Your task to perform on an android device: Open Android settings Image 0: 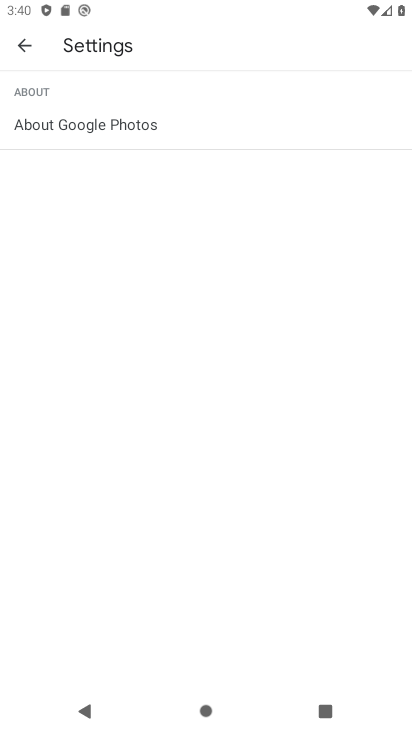
Step 0: press home button
Your task to perform on an android device: Open Android settings Image 1: 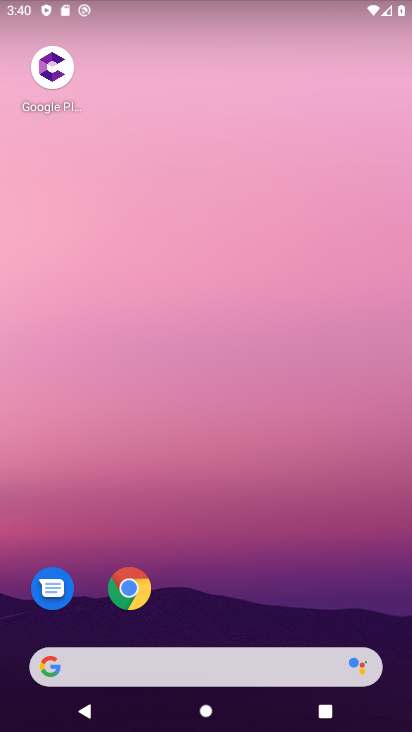
Step 1: drag from (254, 684) to (291, 179)
Your task to perform on an android device: Open Android settings Image 2: 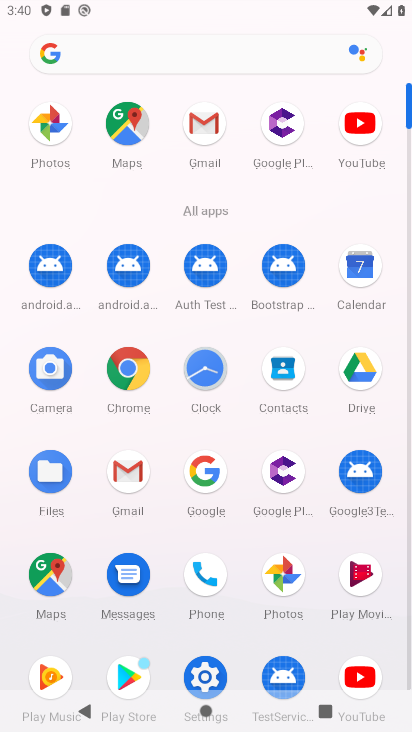
Step 2: click (204, 657)
Your task to perform on an android device: Open Android settings Image 3: 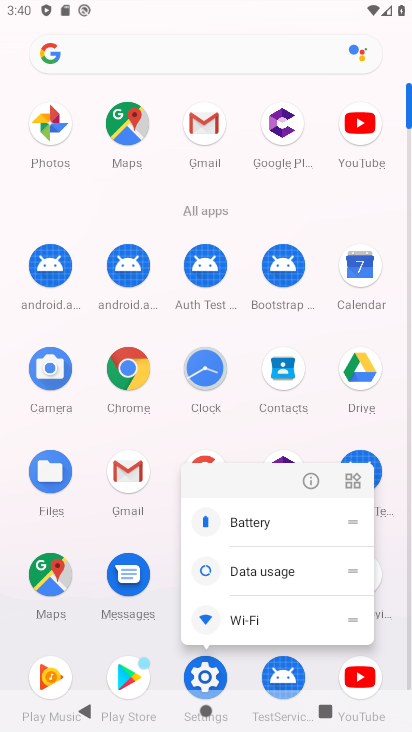
Step 3: click (203, 678)
Your task to perform on an android device: Open Android settings Image 4: 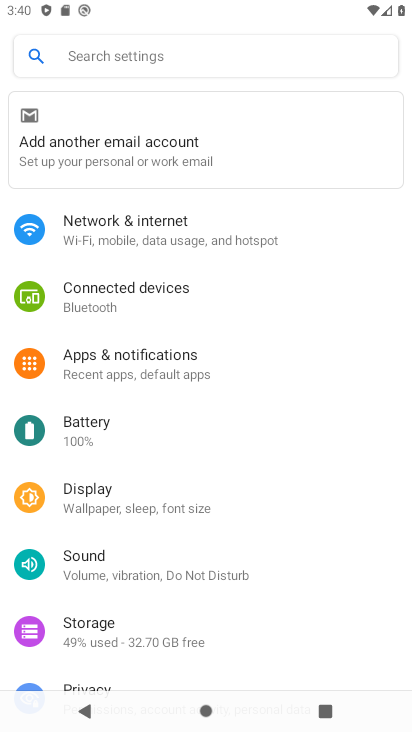
Step 4: click (103, 65)
Your task to perform on an android device: Open Android settings Image 5: 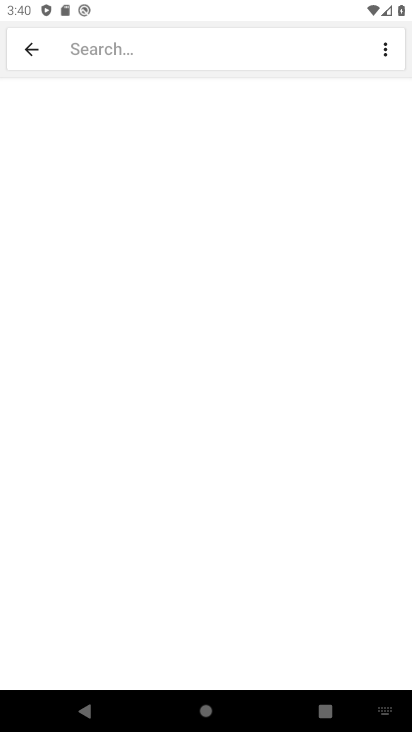
Step 5: click (380, 714)
Your task to perform on an android device: Open Android settings Image 6: 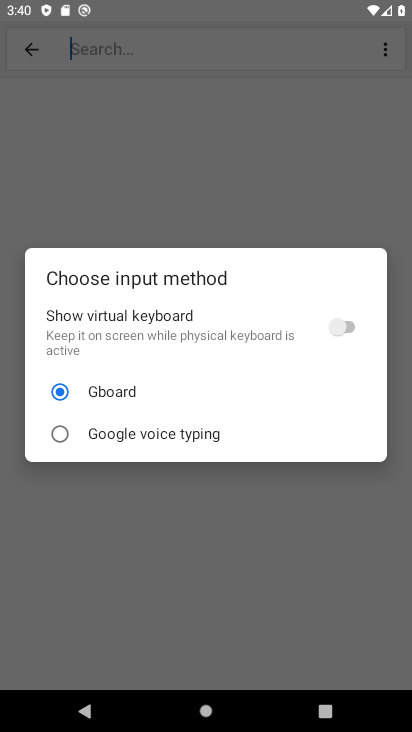
Step 6: click (349, 328)
Your task to perform on an android device: Open Android settings Image 7: 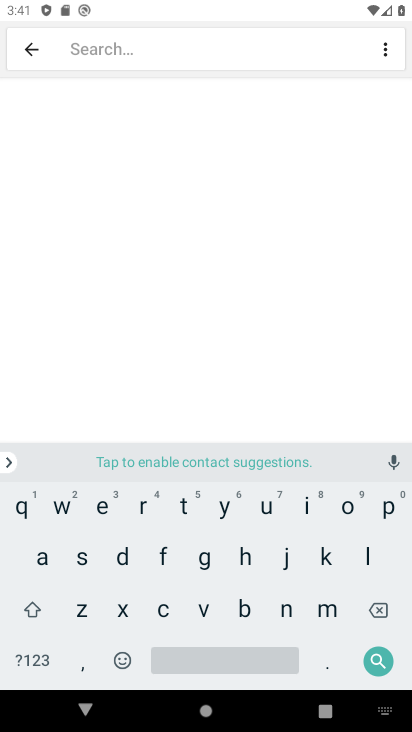
Step 7: click (172, 452)
Your task to perform on an android device: Open Android settings Image 8: 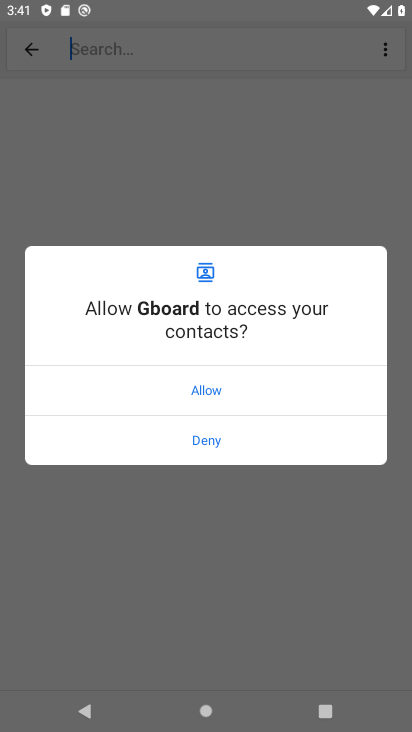
Step 8: click (200, 388)
Your task to perform on an android device: Open Android settings Image 9: 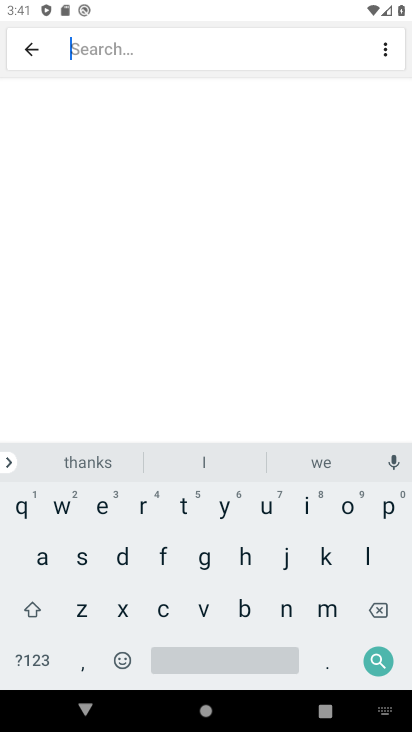
Step 9: click (42, 562)
Your task to perform on an android device: Open Android settings Image 10: 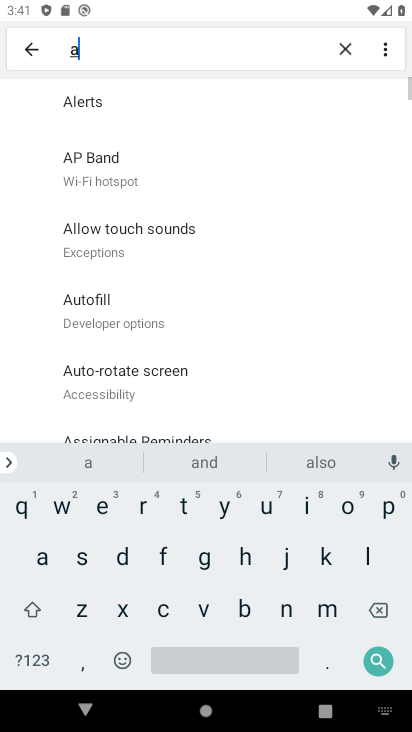
Step 10: click (292, 607)
Your task to perform on an android device: Open Android settings Image 11: 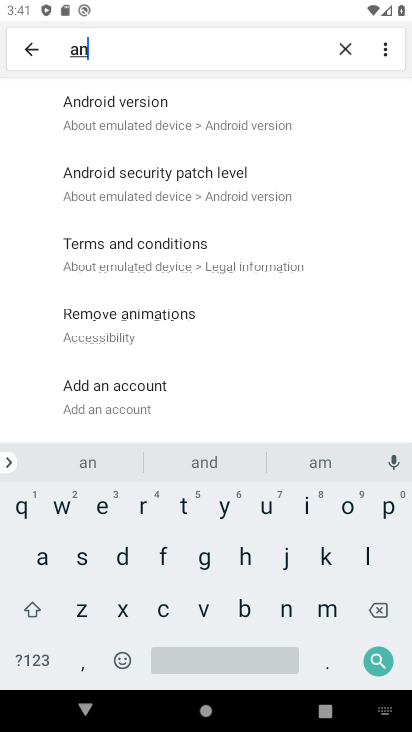
Step 11: click (165, 122)
Your task to perform on an android device: Open Android settings Image 12: 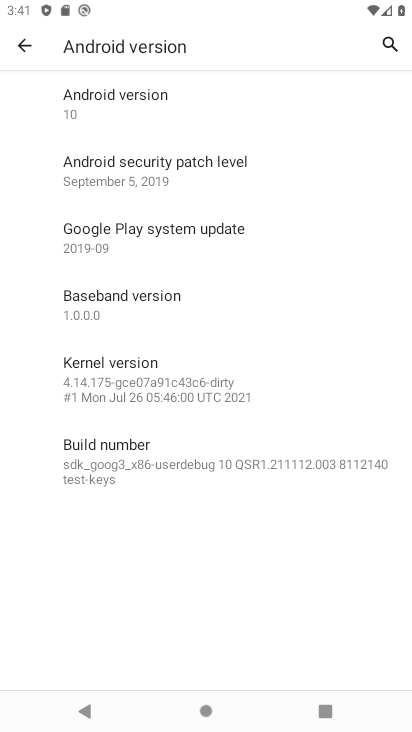
Step 12: click (153, 106)
Your task to perform on an android device: Open Android settings Image 13: 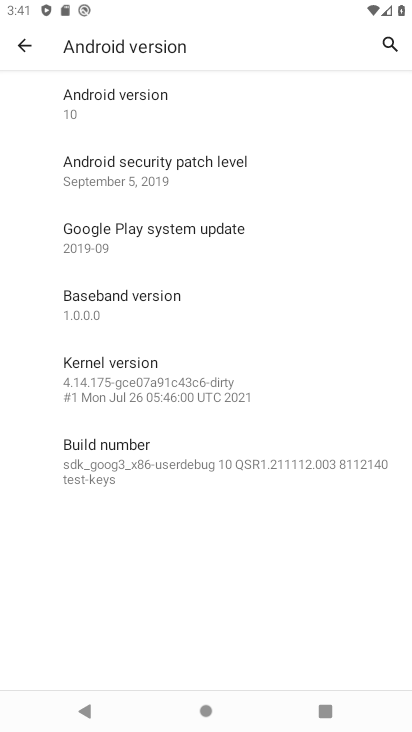
Step 13: task complete